Your task to perform on an android device: Go to wifi settings Image 0: 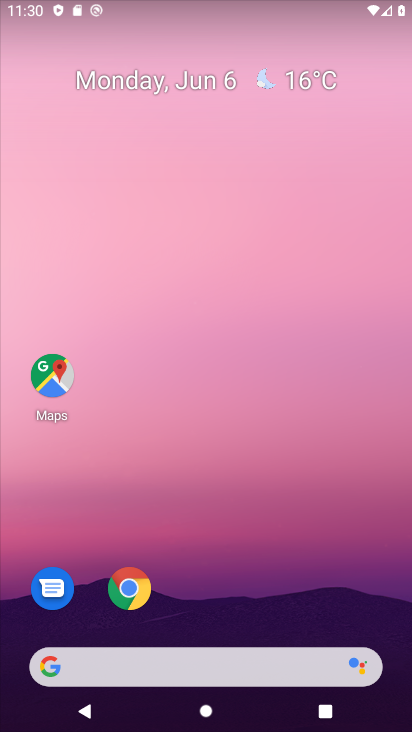
Step 0: drag from (265, 640) to (197, 0)
Your task to perform on an android device: Go to wifi settings Image 1: 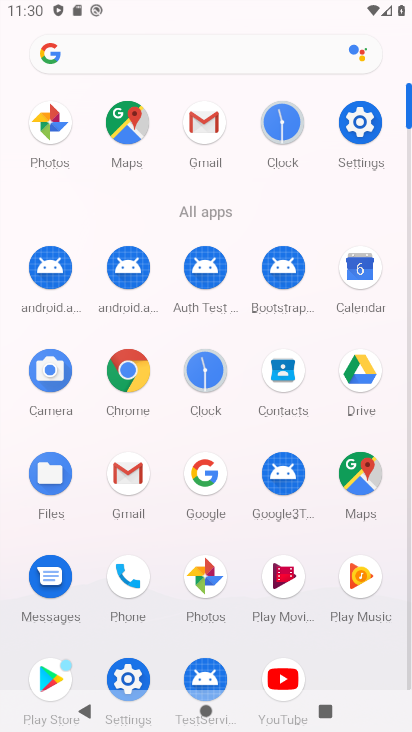
Step 1: click (348, 129)
Your task to perform on an android device: Go to wifi settings Image 2: 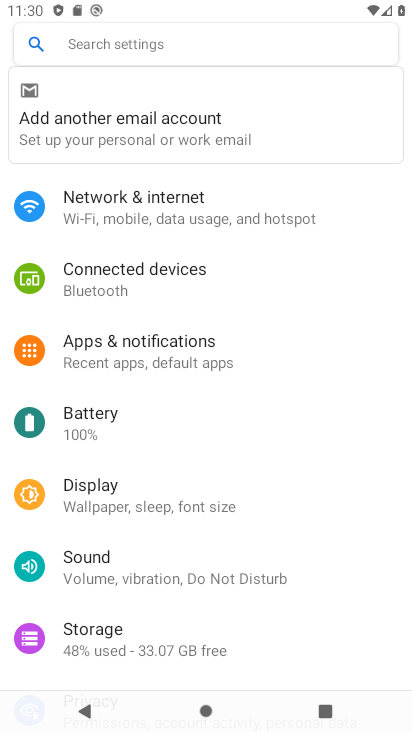
Step 2: click (187, 218)
Your task to perform on an android device: Go to wifi settings Image 3: 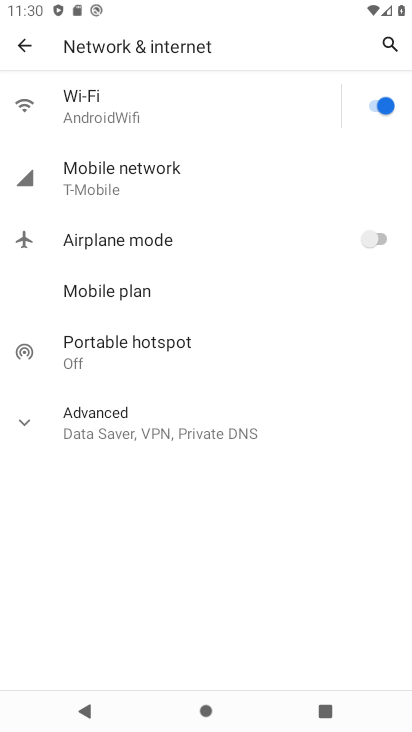
Step 3: click (121, 101)
Your task to perform on an android device: Go to wifi settings Image 4: 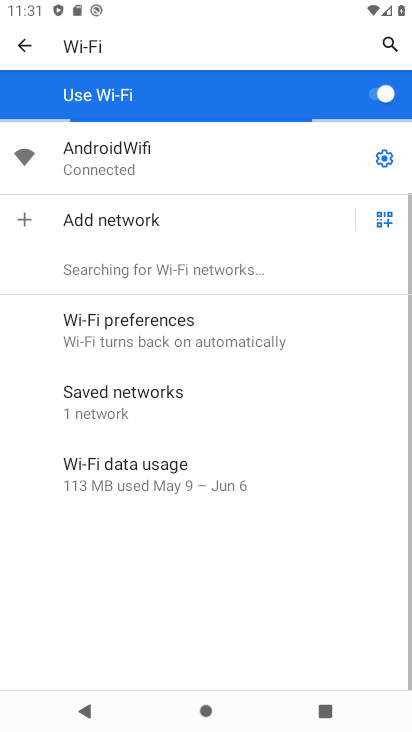
Step 4: task complete